Your task to perform on an android device: Clear all items from cart on ebay.com. Add "lenovo thinkpad" to the cart on ebay.com, then select checkout. Image 0: 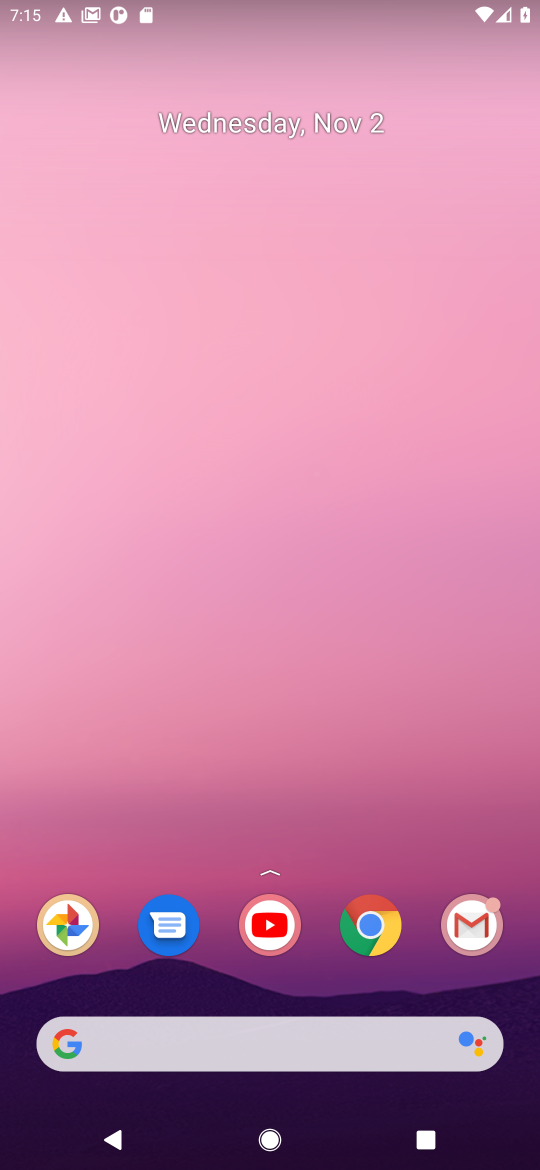
Step 0: press home button
Your task to perform on an android device: Clear all items from cart on ebay.com. Add "lenovo thinkpad" to the cart on ebay.com, then select checkout. Image 1: 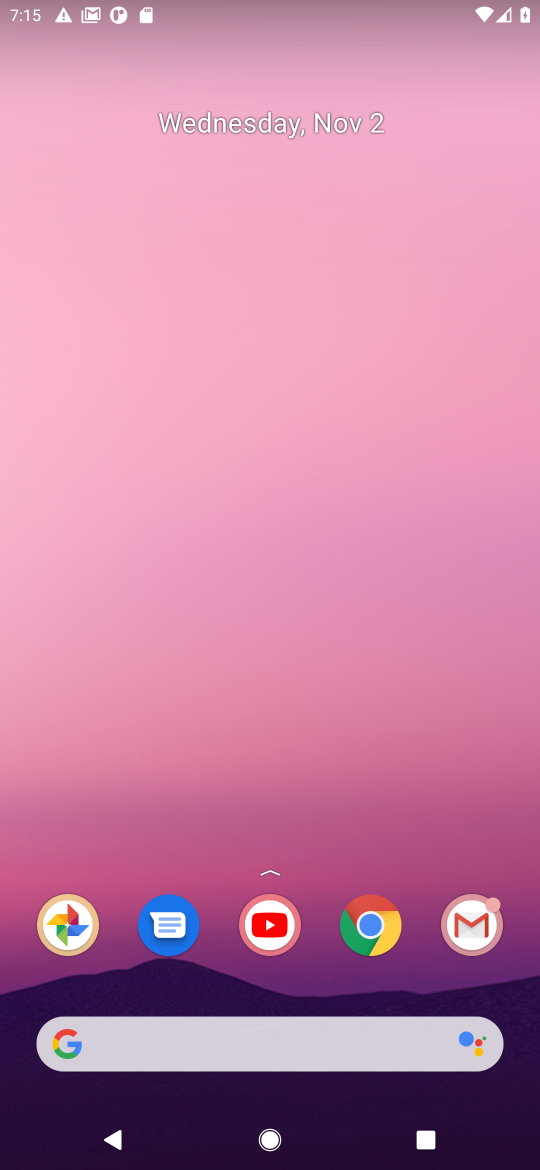
Step 1: click (114, 1032)
Your task to perform on an android device: Clear all items from cart on ebay.com. Add "lenovo thinkpad" to the cart on ebay.com, then select checkout. Image 2: 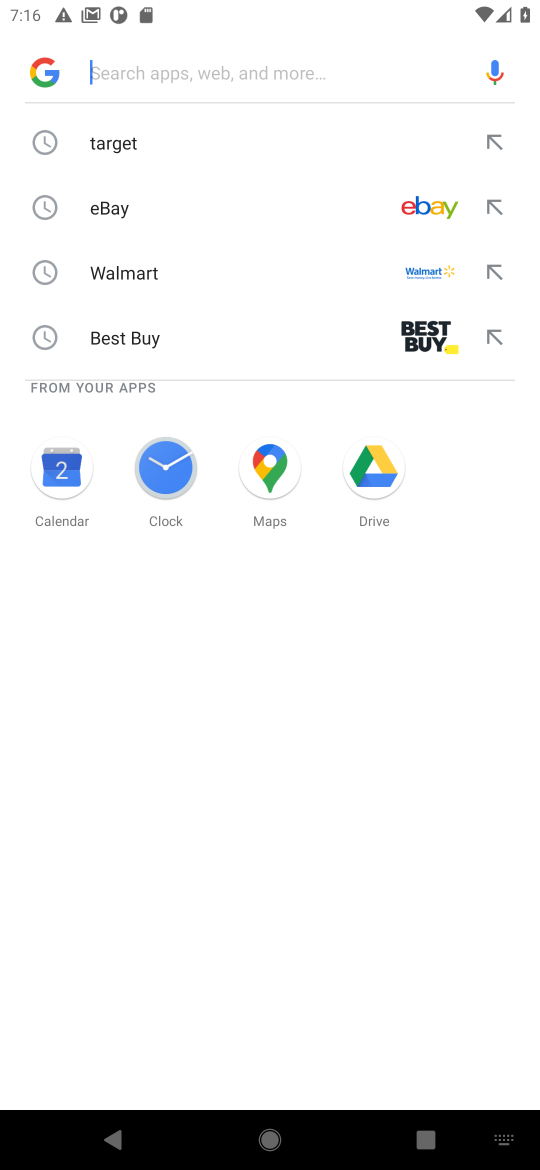
Step 2: type "ebay.com"
Your task to perform on an android device: Clear all items from cart on ebay.com. Add "lenovo thinkpad" to the cart on ebay.com, then select checkout. Image 3: 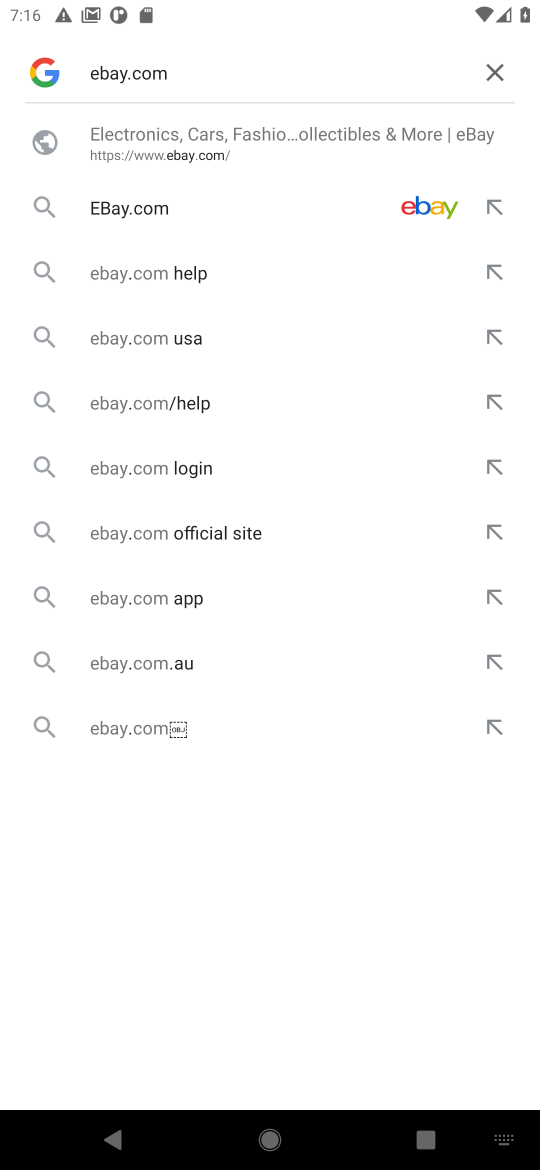
Step 3: press enter
Your task to perform on an android device: Clear all items from cart on ebay.com. Add "lenovo thinkpad" to the cart on ebay.com, then select checkout. Image 4: 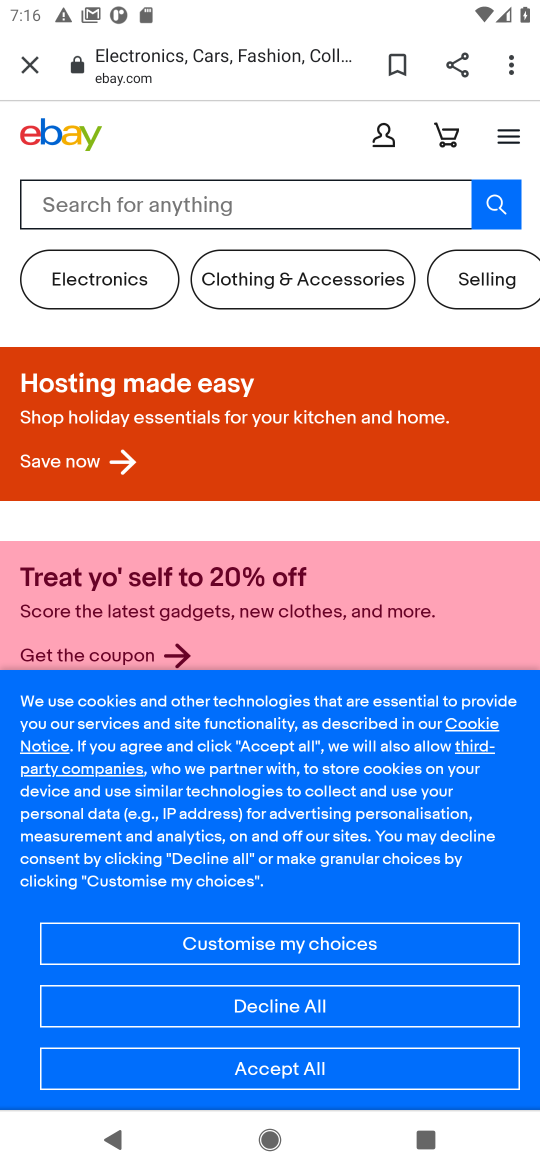
Step 4: click (446, 143)
Your task to perform on an android device: Clear all items from cart on ebay.com. Add "lenovo thinkpad" to the cart on ebay.com, then select checkout. Image 5: 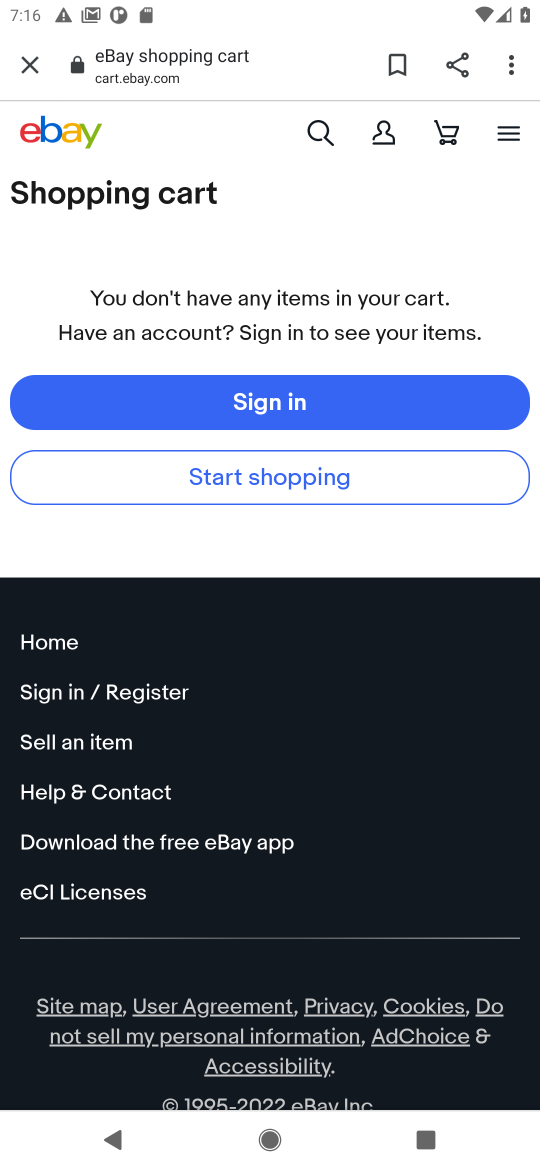
Step 5: click (318, 127)
Your task to perform on an android device: Clear all items from cart on ebay.com. Add "lenovo thinkpad" to the cart on ebay.com, then select checkout. Image 6: 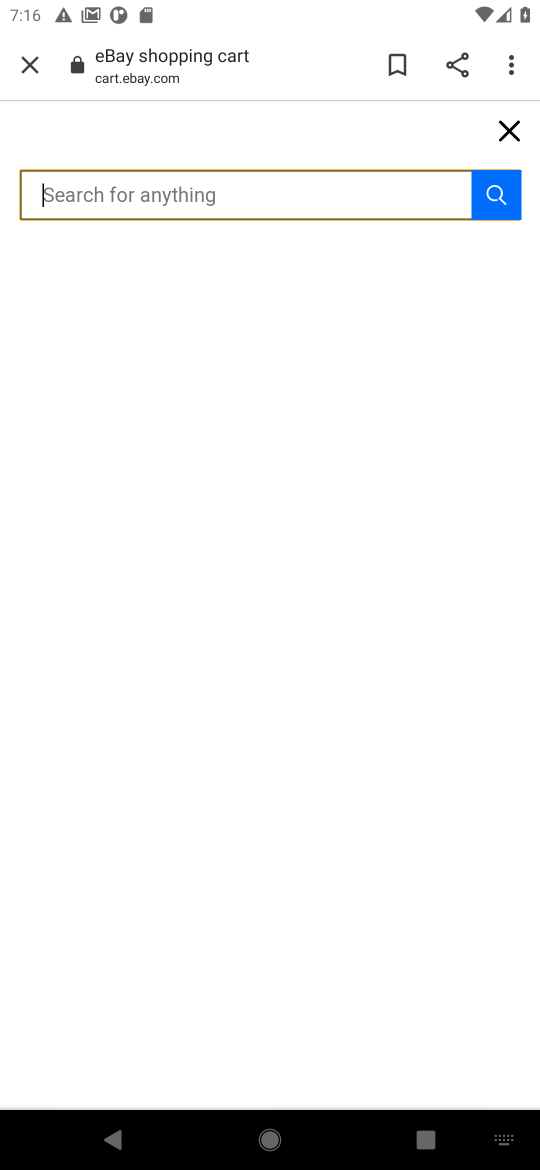
Step 6: type "lenovo thinkpad"
Your task to perform on an android device: Clear all items from cart on ebay.com. Add "lenovo thinkpad" to the cart on ebay.com, then select checkout. Image 7: 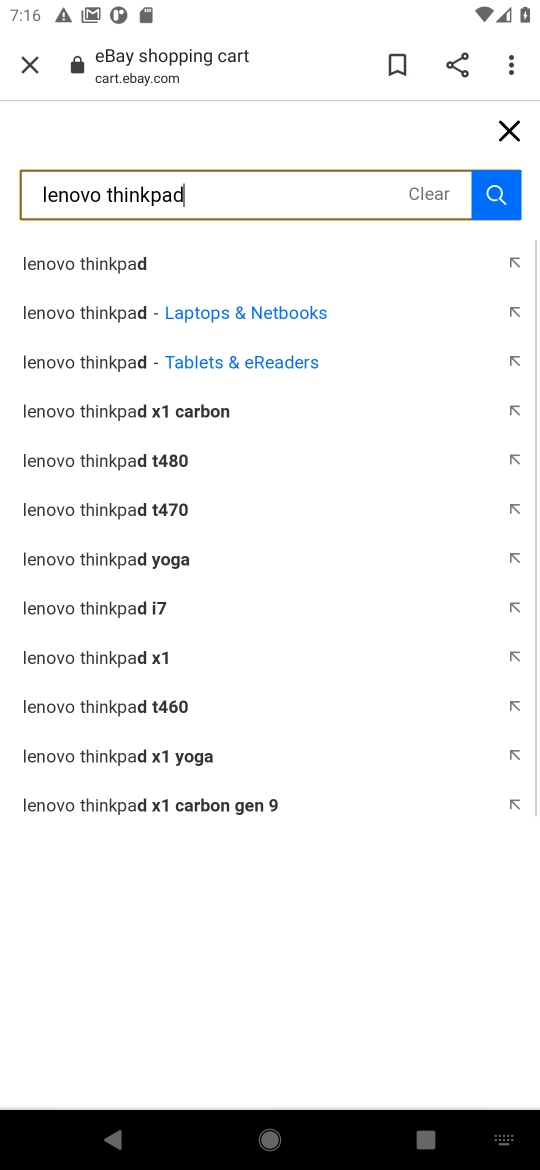
Step 7: press enter
Your task to perform on an android device: Clear all items from cart on ebay.com. Add "lenovo thinkpad" to the cart on ebay.com, then select checkout. Image 8: 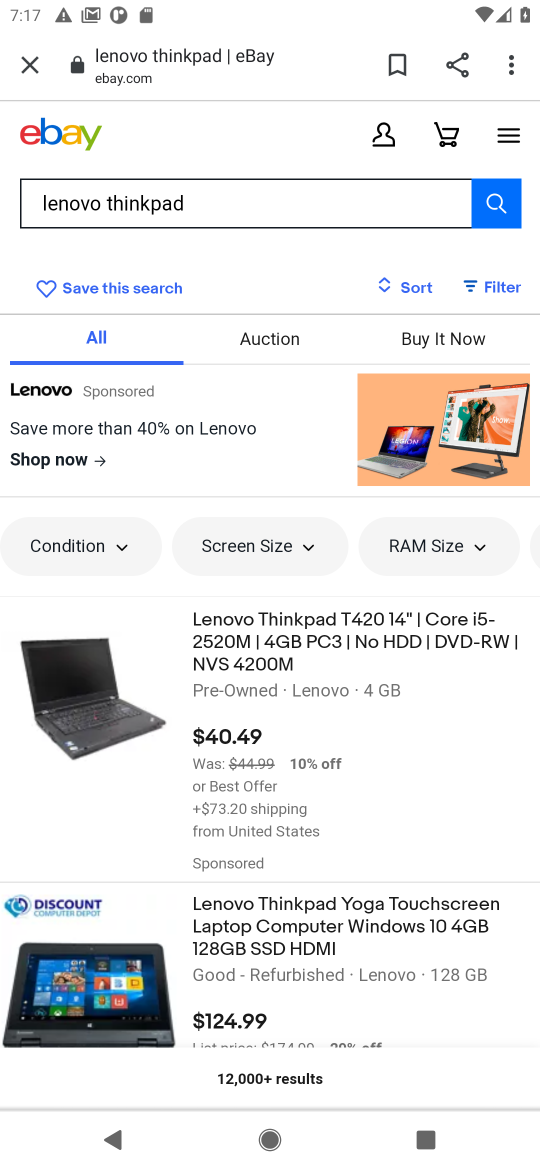
Step 8: click (293, 633)
Your task to perform on an android device: Clear all items from cart on ebay.com. Add "lenovo thinkpad" to the cart on ebay.com, then select checkout. Image 9: 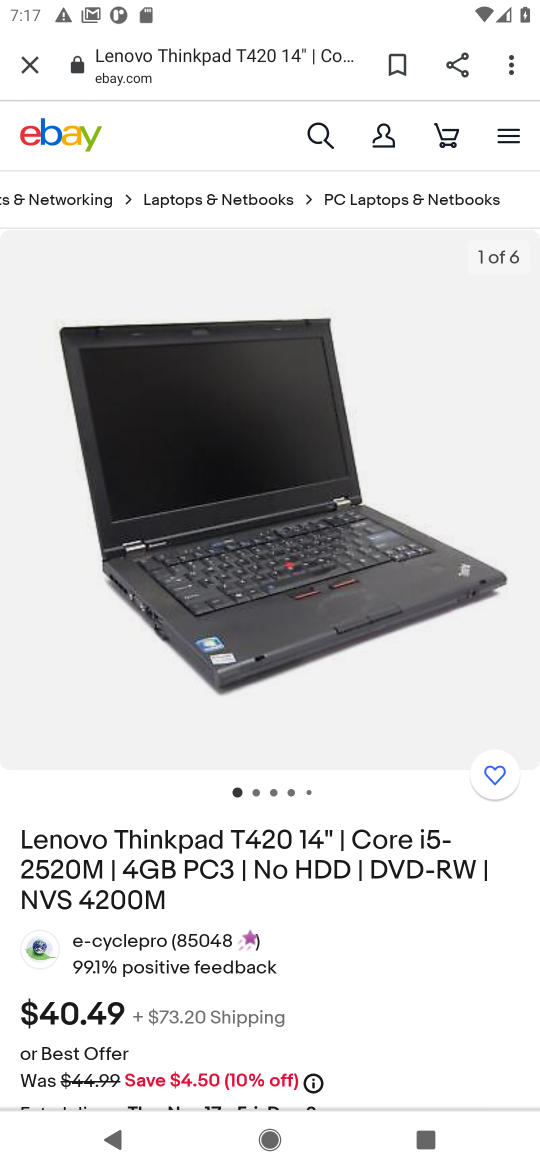
Step 9: drag from (343, 933) to (337, 501)
Your task to perform on an android device: Clear all items from cart on ebay.com. Add "lenovo thinkpad" to the cart on ebay.com, then select checkout. Image 10: 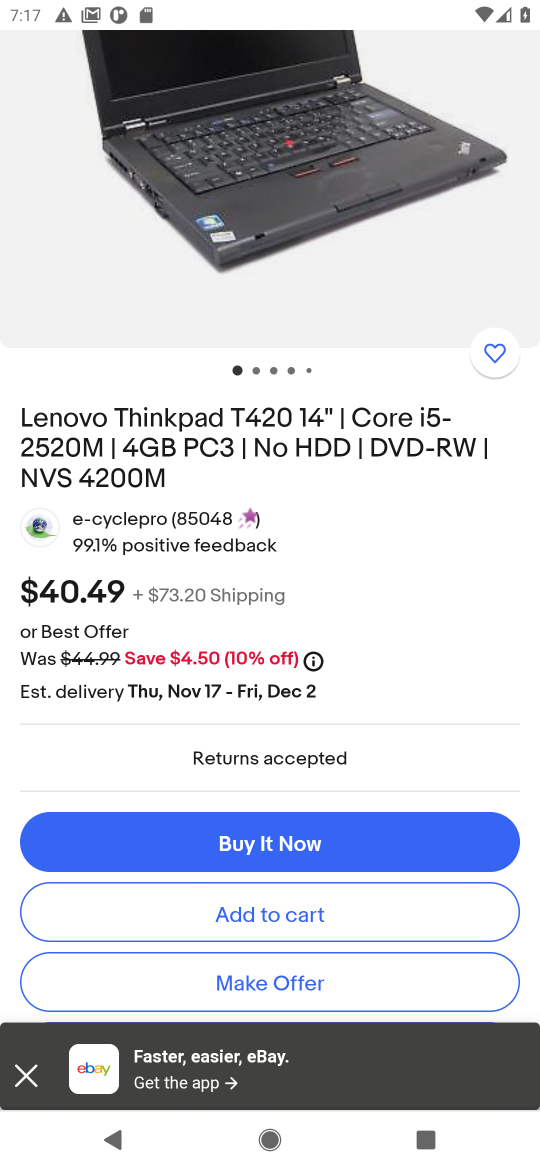
Step 10: click (247, 912)
Your task to perform on an android device: Clear all items from cart on ebay.com. Add "lenovo thinkpad" to the cart on ebay.com, then select checkout. Image 11: 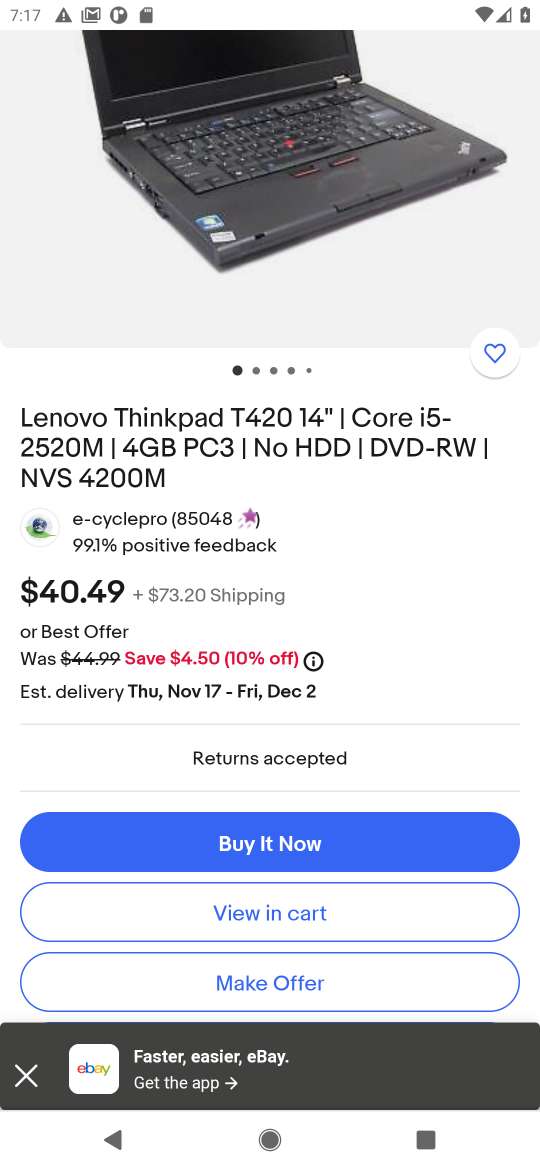
Step 11: click (310, 913)
Your task to perform on an android device: Clear all items from cart on ebay.com. Add "lenovo thinkpad" to the cart on ebay.com, then select checkout. Image 12: 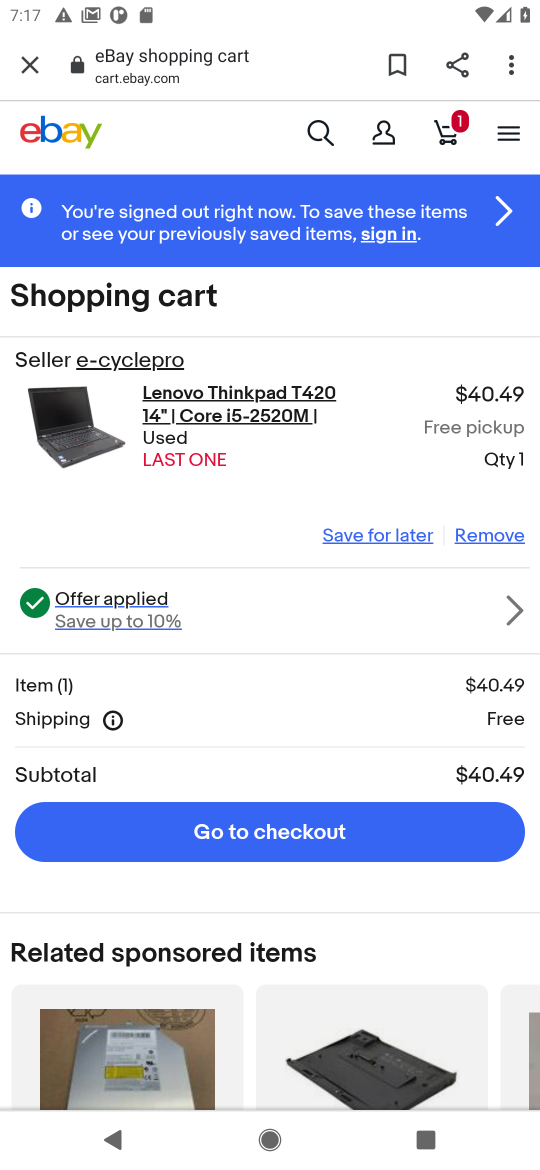
Step 12: click (242, 828)
Your task to perform on an android device: Clear all items from cart on ebay.com. Add "lenovo thinkpad" to the cart on ebay.com, then select checkout. Image 13: 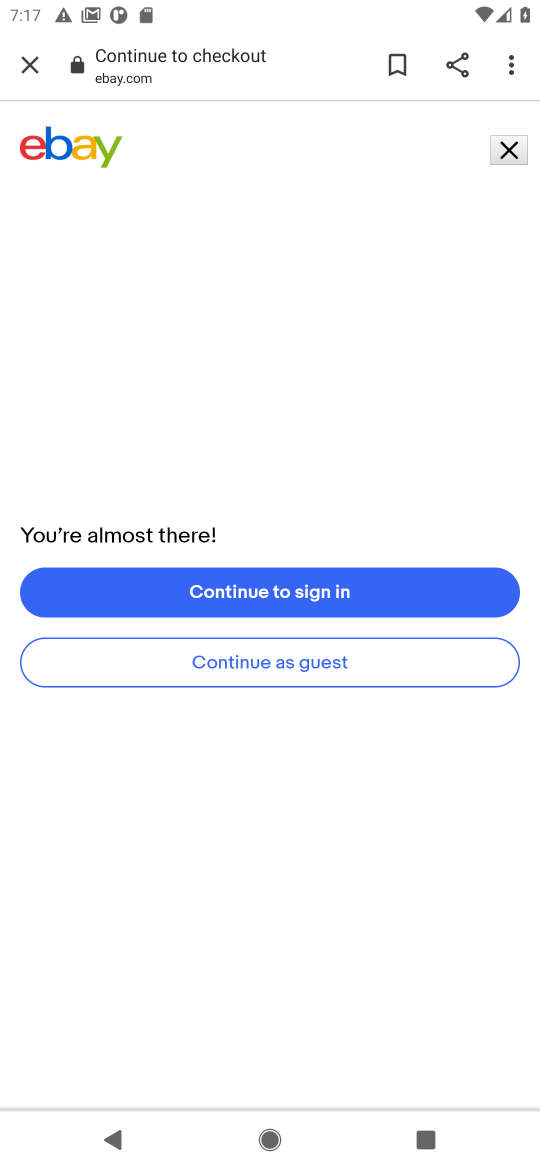
Step 13: task complete